Your task to perform on an android device: turn vacation reply on in the gmail app Image 0: 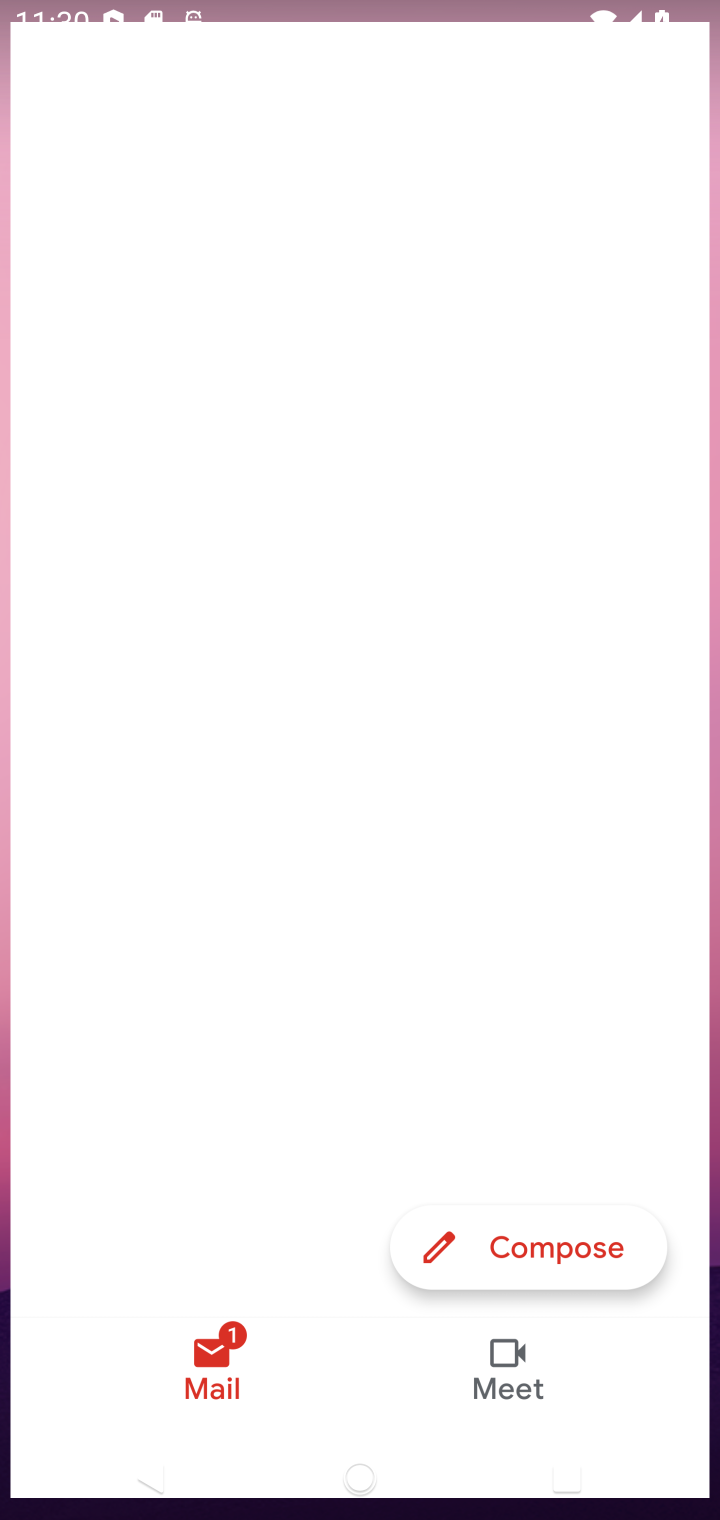
Step 0: press home button
Your task to perform on an android device: turn vacation reply on in the gmail app Image 1: 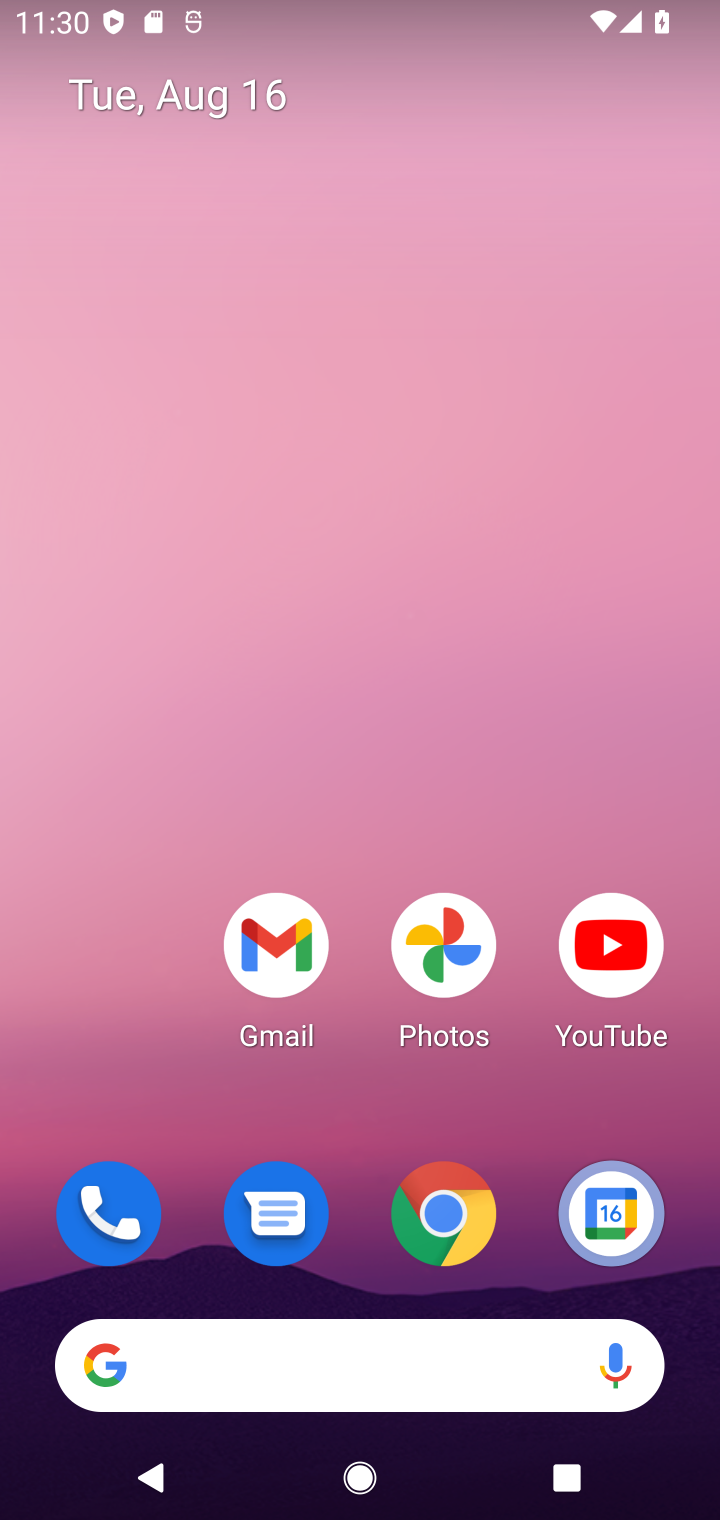
Step 1: drag from (374, 762) to (419, 55)
Your task to perform on an android device: turn vacation reply on in the gmail app Image 2: 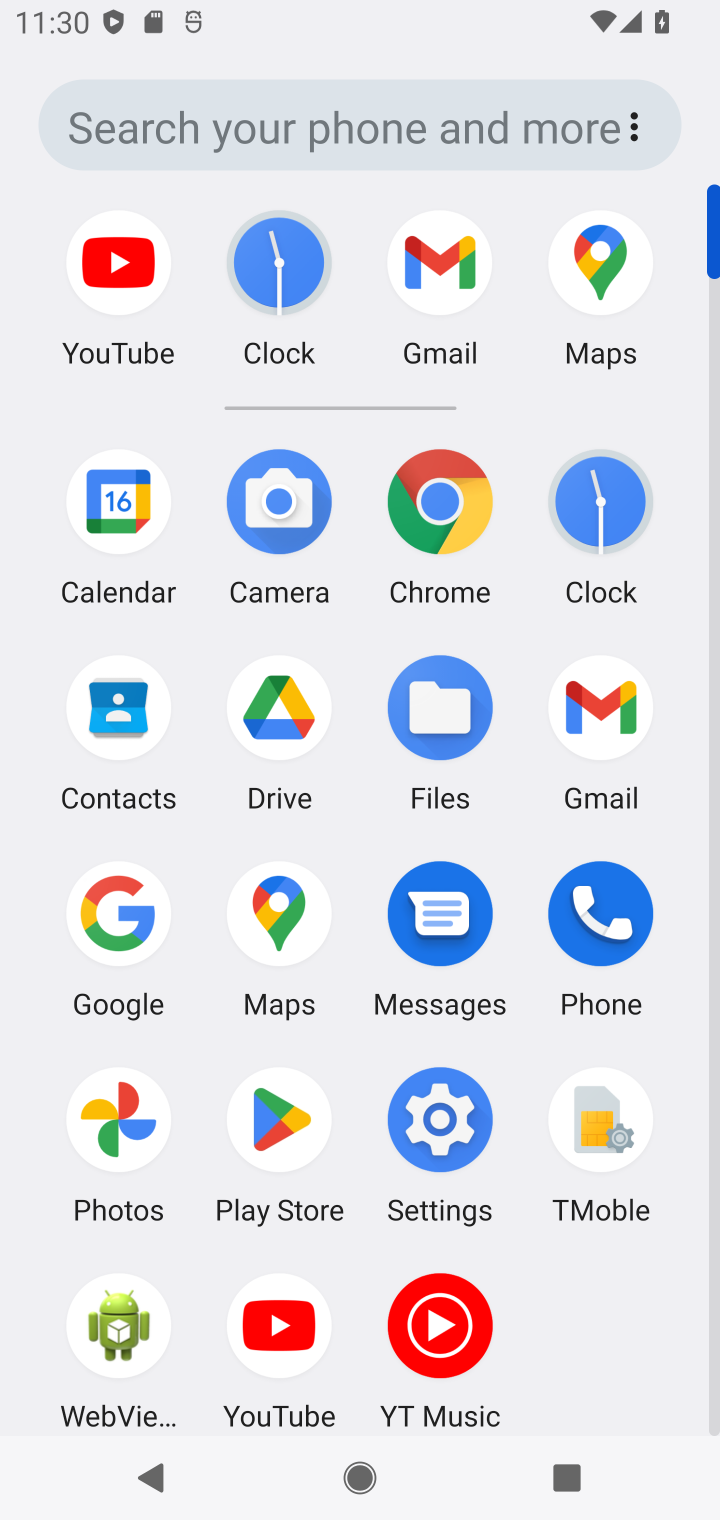
Step 2: click (602, 704)
Your task to perform on an android device: turn vacation reply on in the gmail app Image 3: 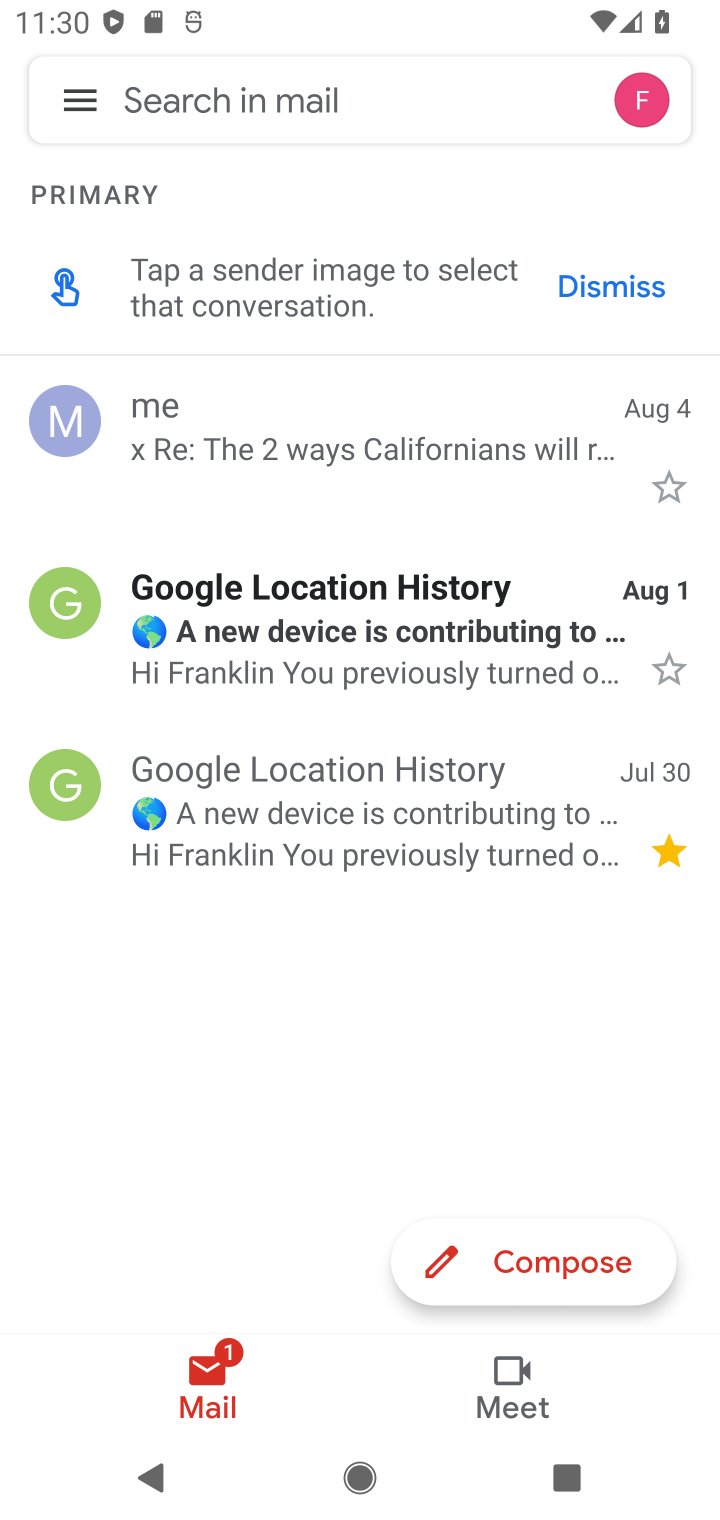
Step 3: click (87, 84)
Your task to perform on an android device: turn vacation reply on in the gmail app Image 4: 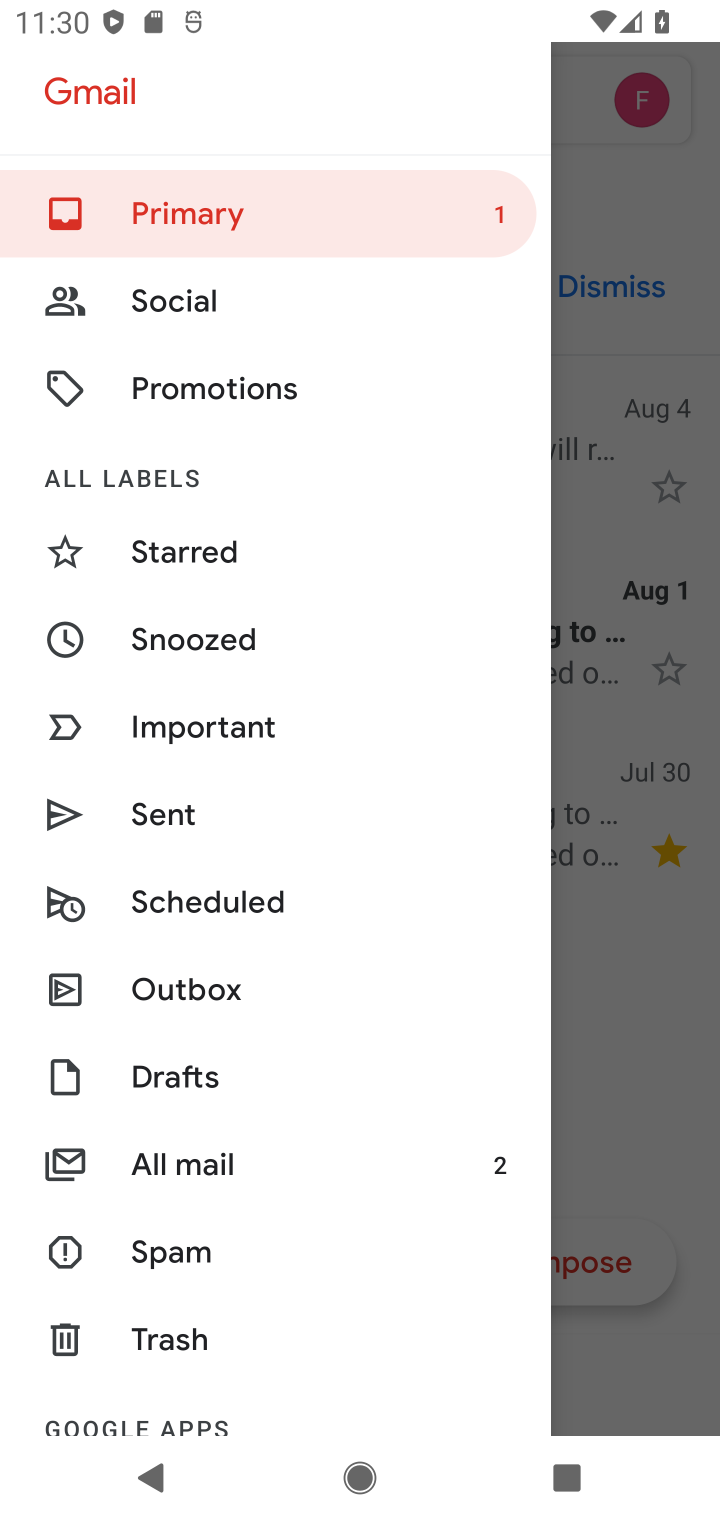
Step 4: drag from (191, 1245) to (266, 68)
Your task to perform on an android device: turn vacation reply on in the gmail app Image 5: 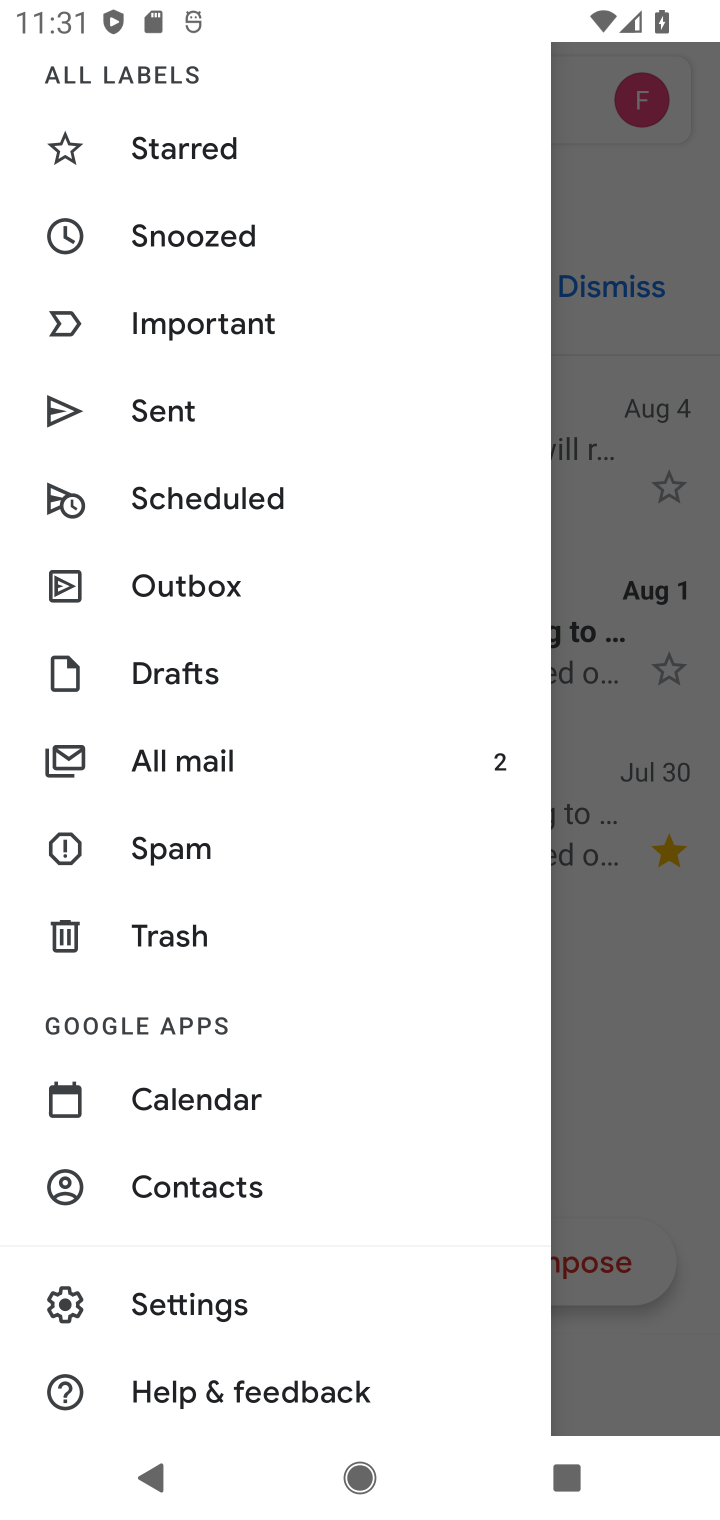
Step 5: click (215, 1305)
Your task to perform on an android device: turn vacation reply on in the gmail app Image 6: 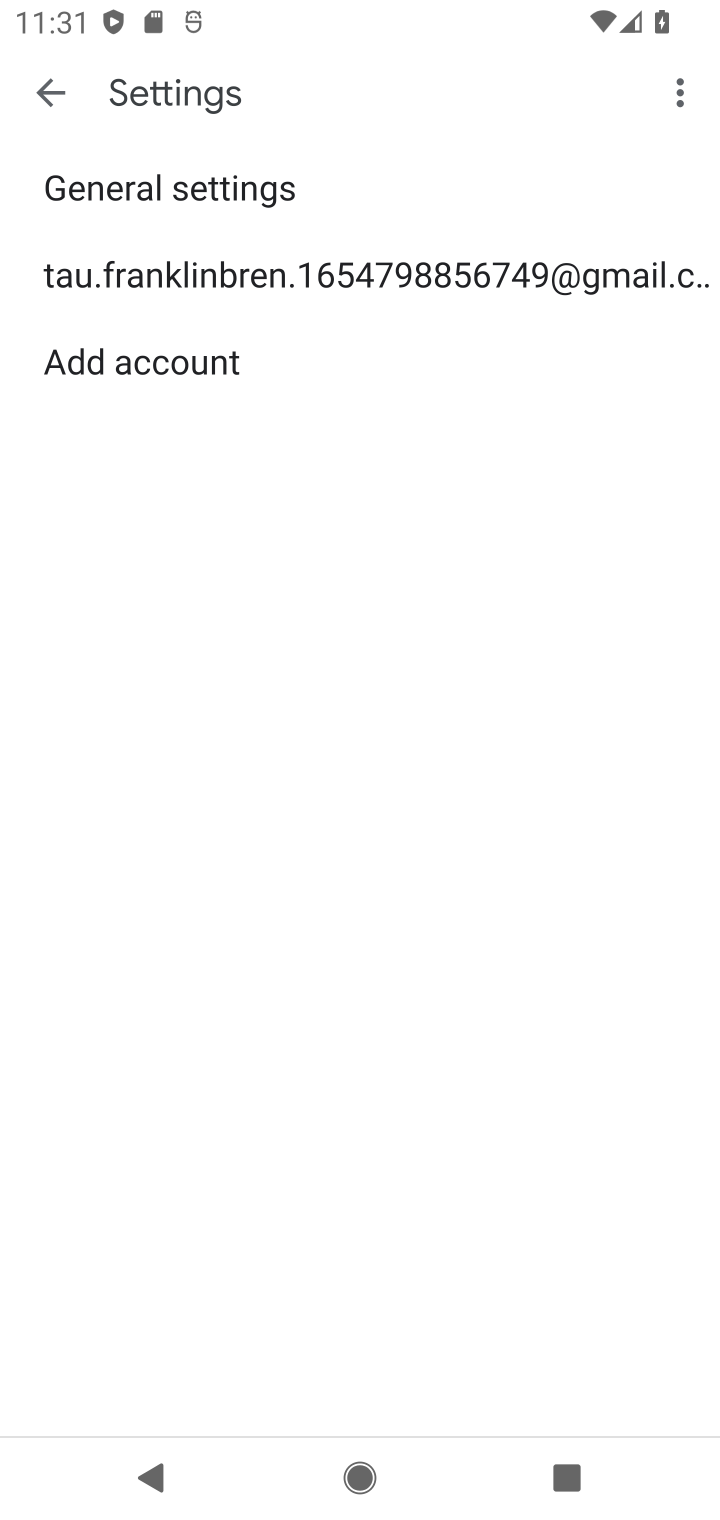
Step 6: click (366, 305)
Your task to perform on an android device: turn vacation reply on in the gmail app Image 7: 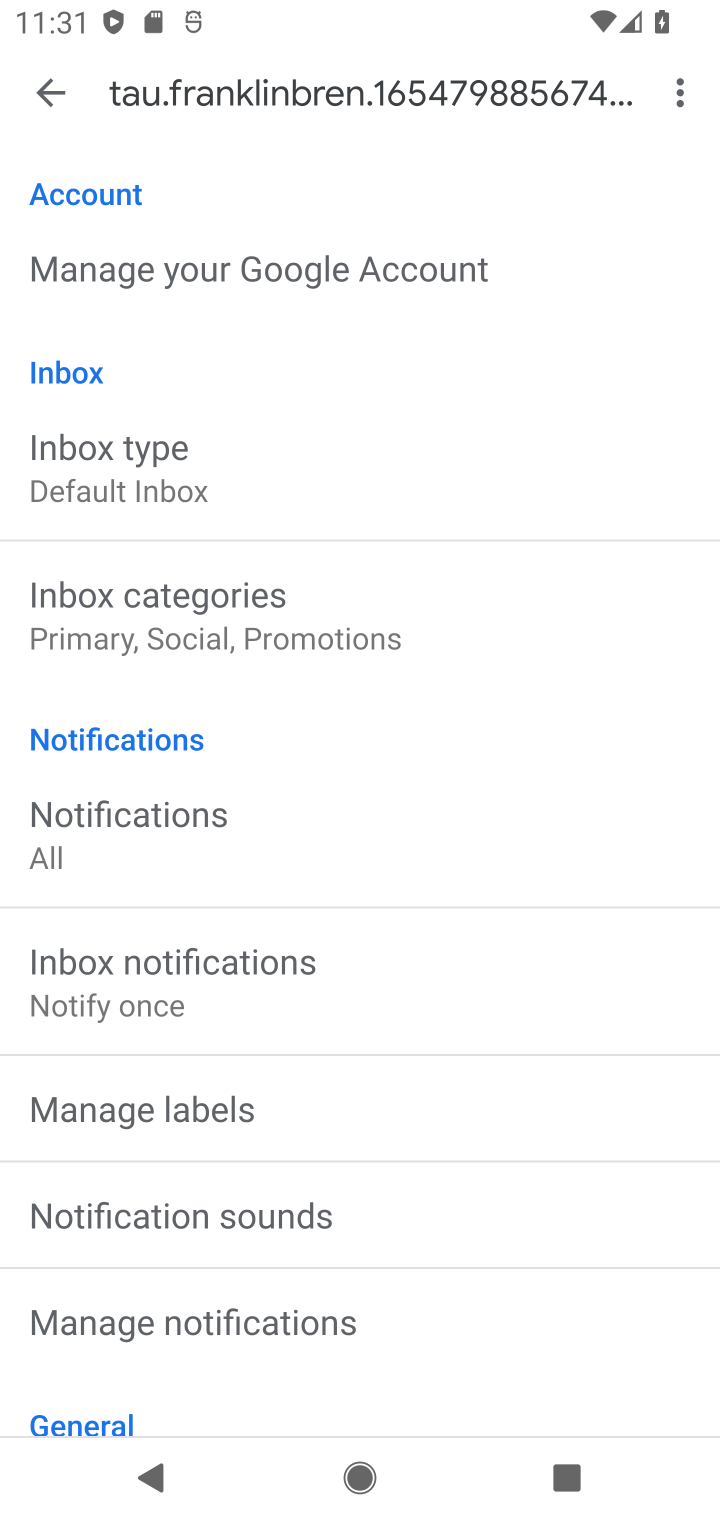
Step 7: drag from (443, 1250) to (440, 260)
Your task to perform on an android device: turn vacation reply on in the gmail app Image 8: 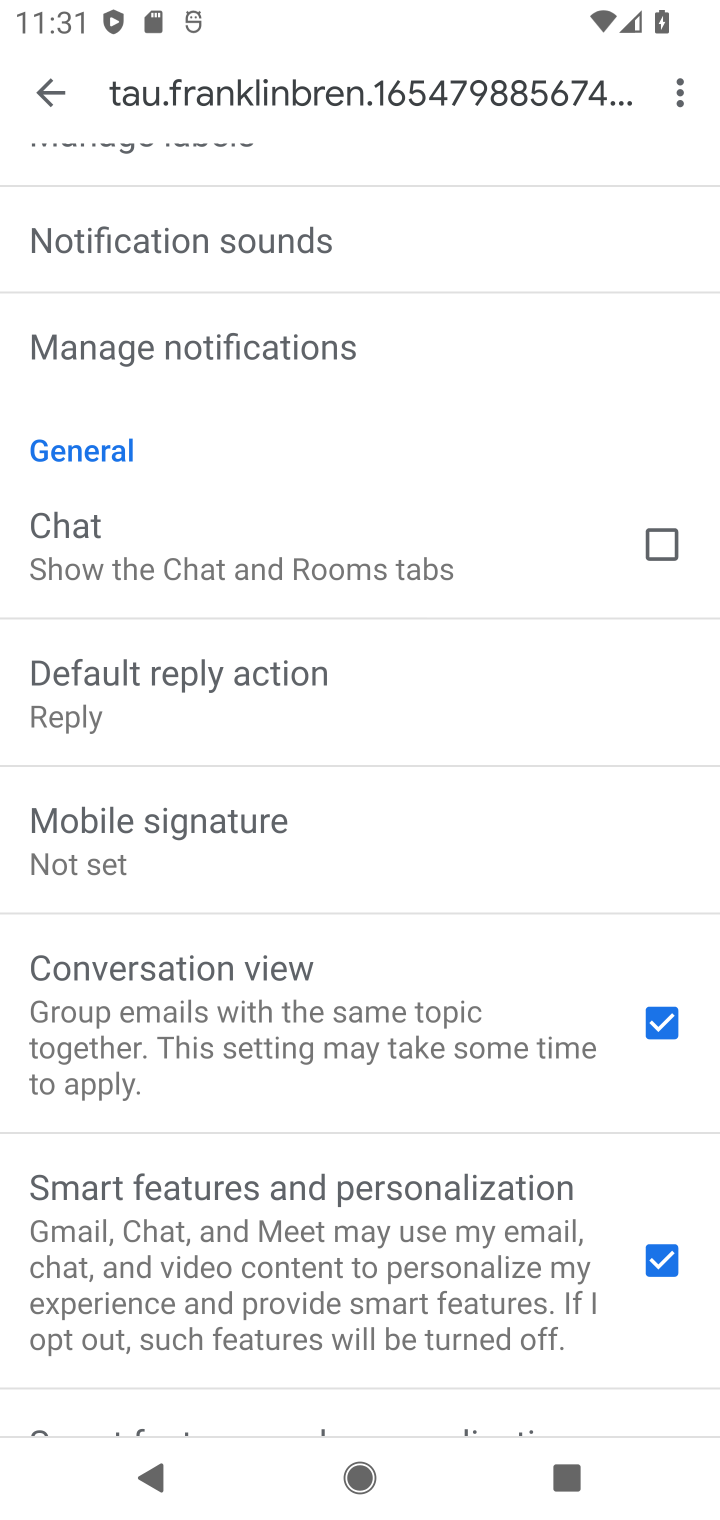
Step 8: drag from (448, 881) to (486, 147)
Your task to perform on an android device: turn vacation reply on in the gmail app Image 9: 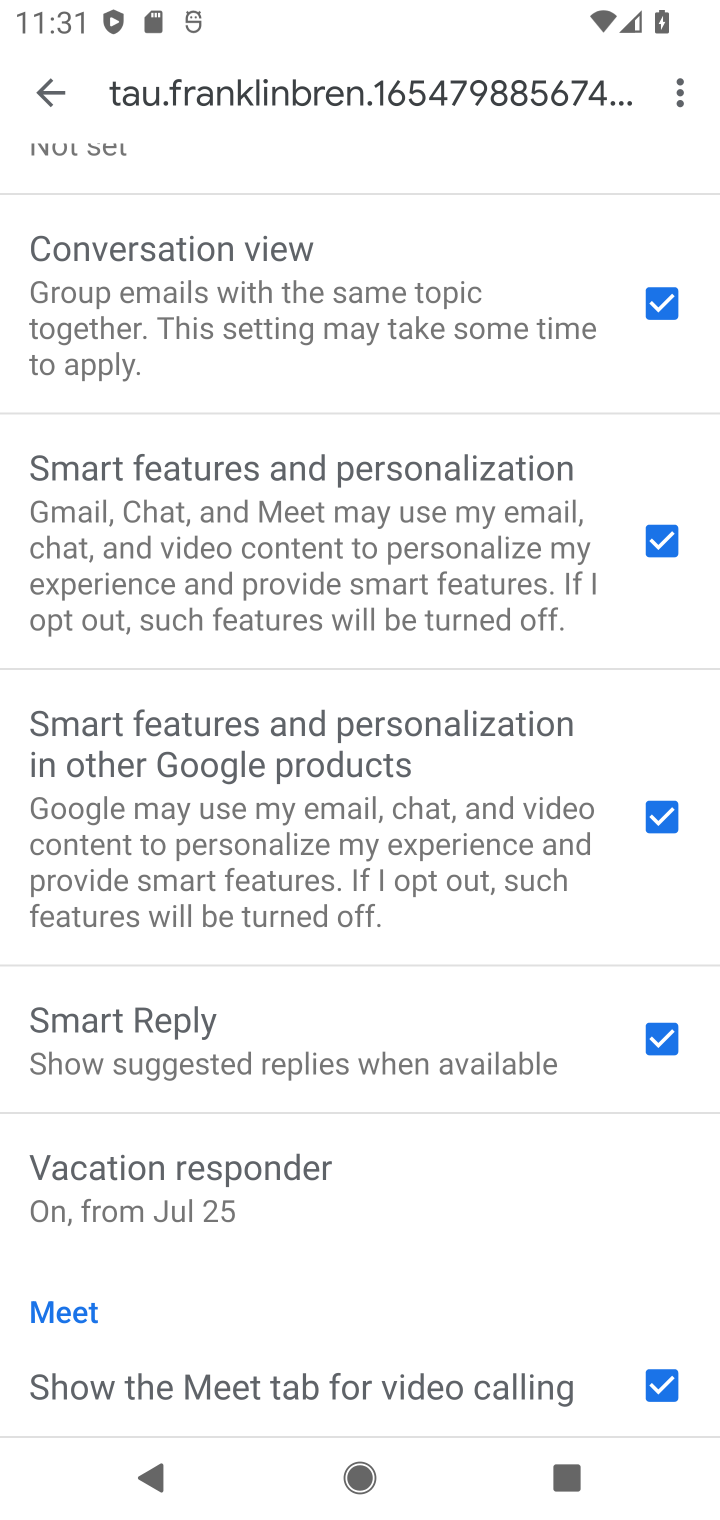
Step 9: drag from (557, 1302) to (490, 1070)
Your task to perform on an android device: turn vacation reply on in the gmail app Image 10: 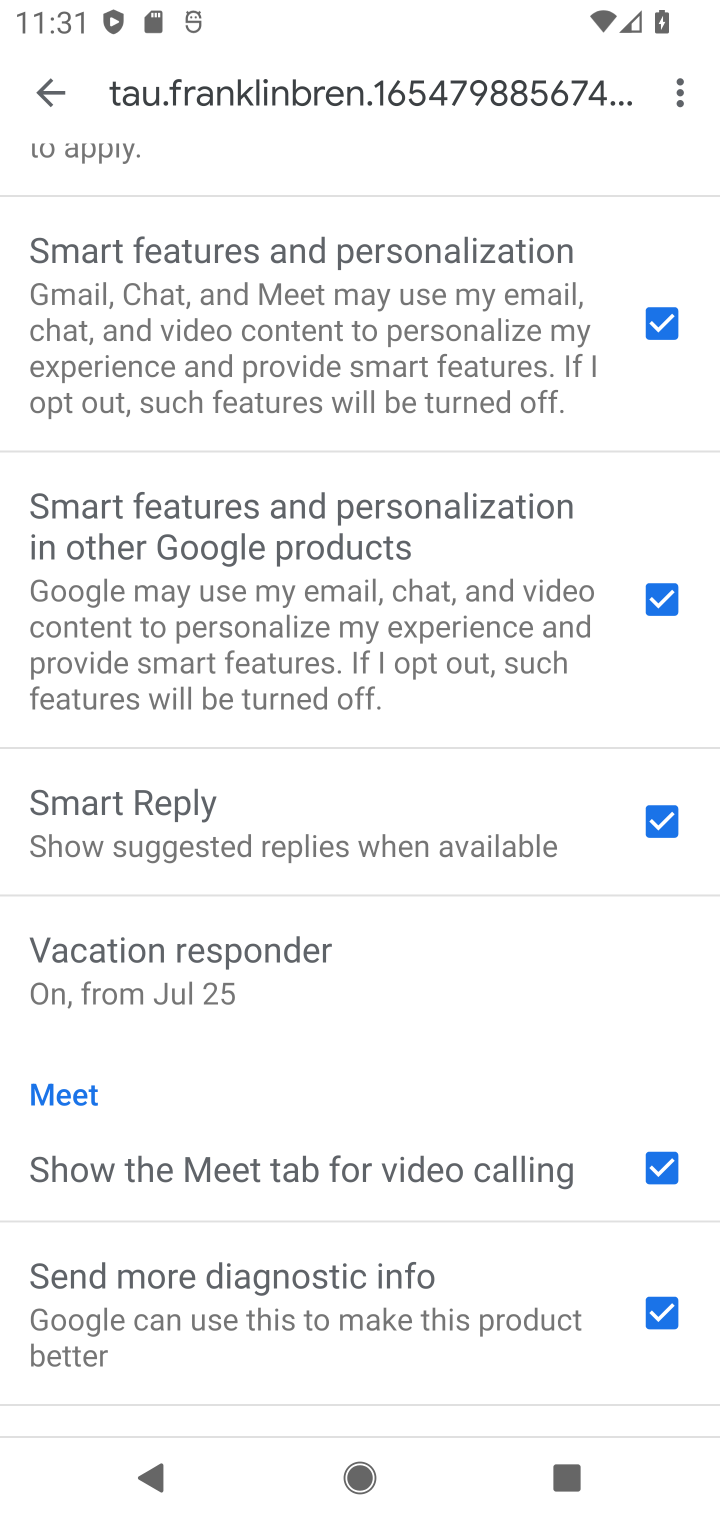
Step 10: click (217, 948)
Your task to perform on an android device: turn vacation reply on in the gmail app Image 11: 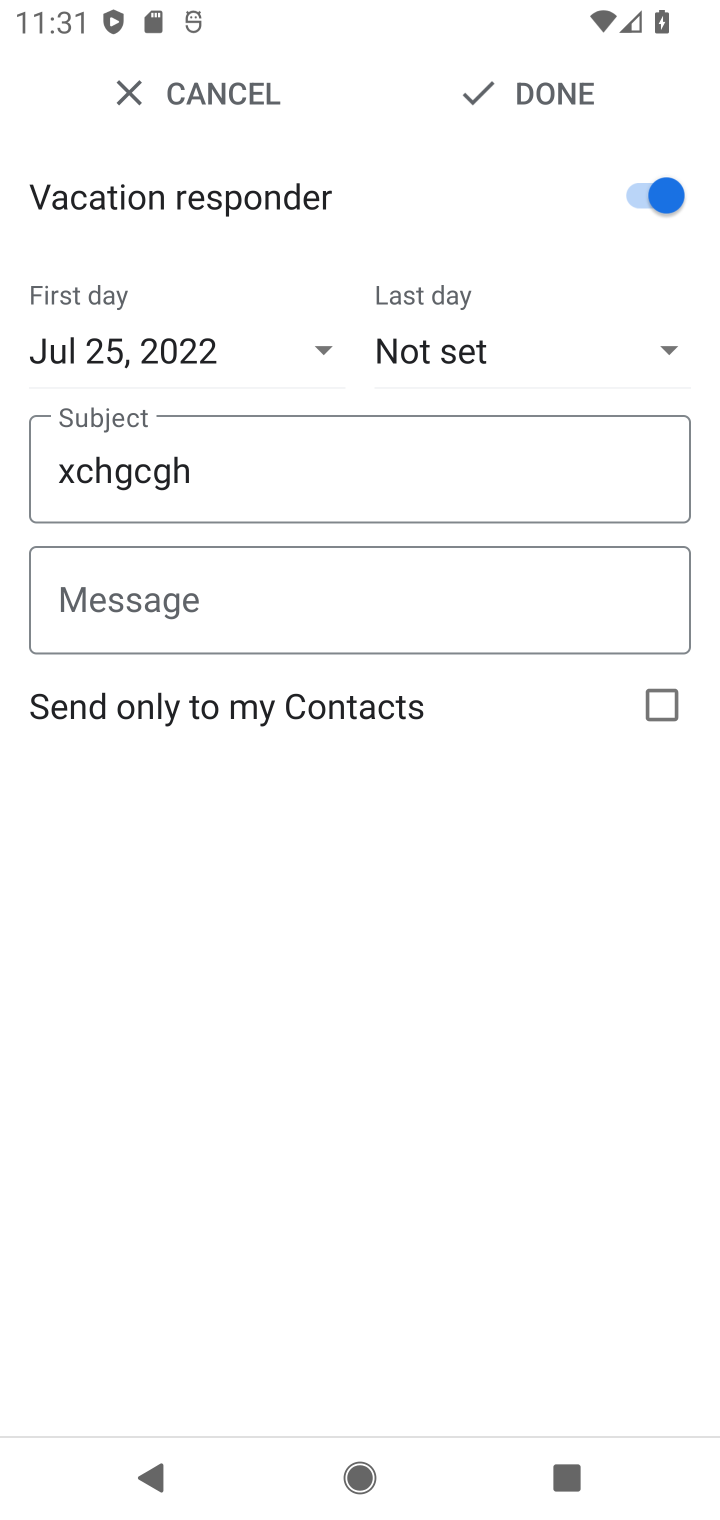
Step 11: task complete